Your task to perform on an android device: change timer sound Image 0: 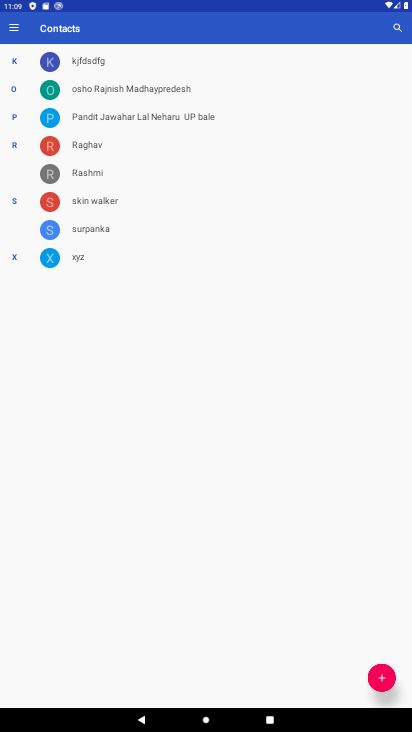
Step 0: press home button
Your task to perform on an android device: change timer sound Image 1: 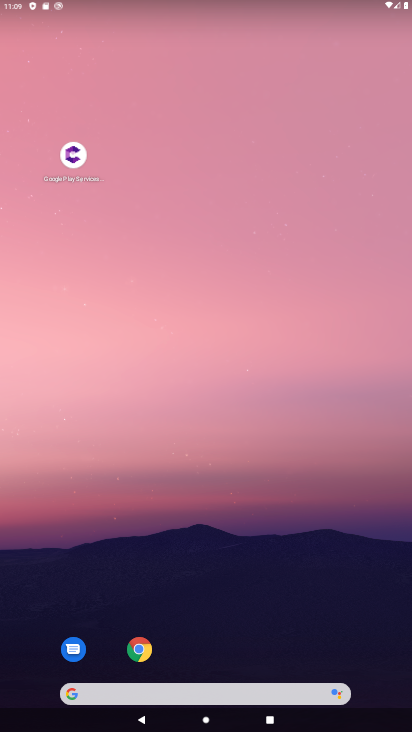
Step 1: drag from (254, 669) to (233, 83)
Your task to perform on an android device: change timer sound Image 2: 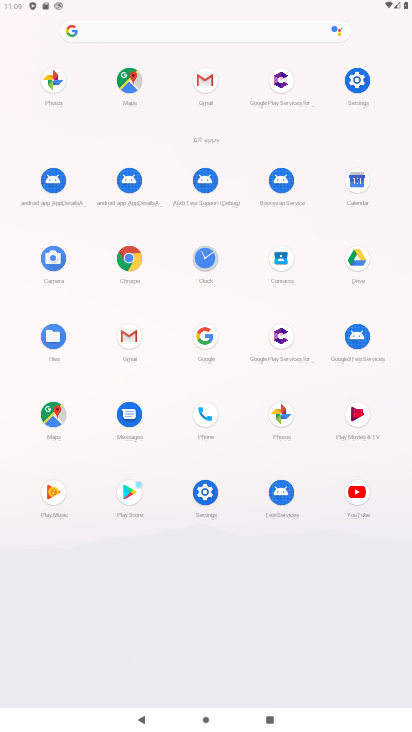
Step 2: click (207, 504)
Your task to perform on an android device: change timer sound Image 3: 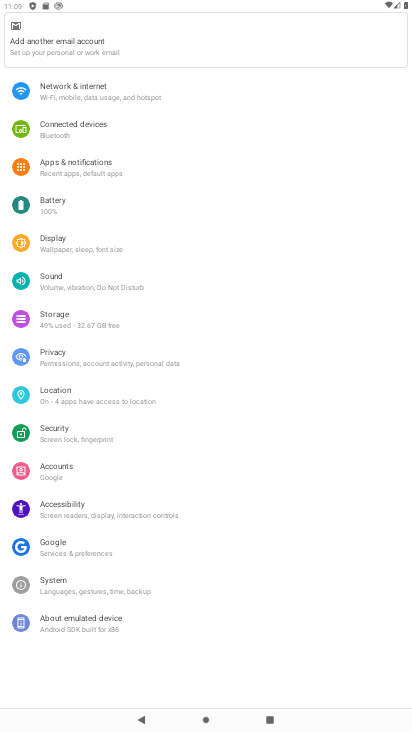
Step 3: press home button
Your task to perform on an android device: change timer sound Image 4: 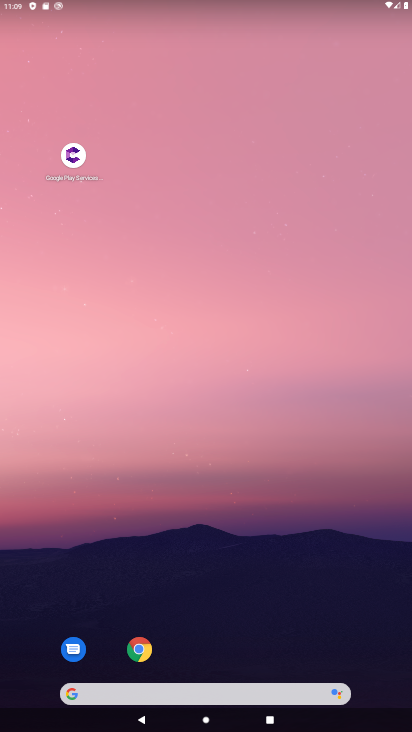
Step 4: drag from (250, 611) to (273, 50)
Your task to perform on an android device: change timer sound Image 5: 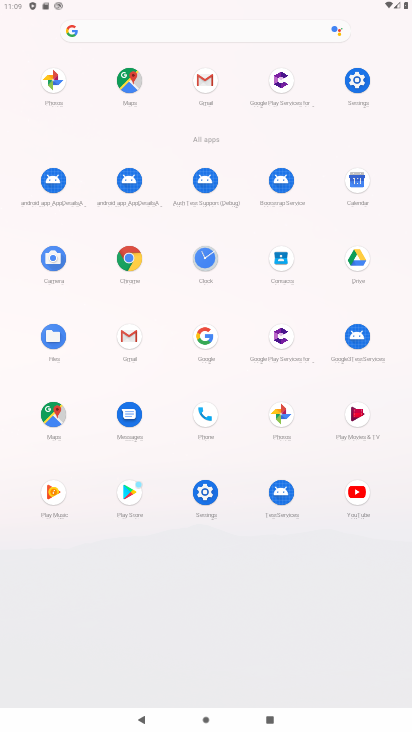
Step 5: click (210, 263)
Your task to perform on an android device: change timer sound Image 6: 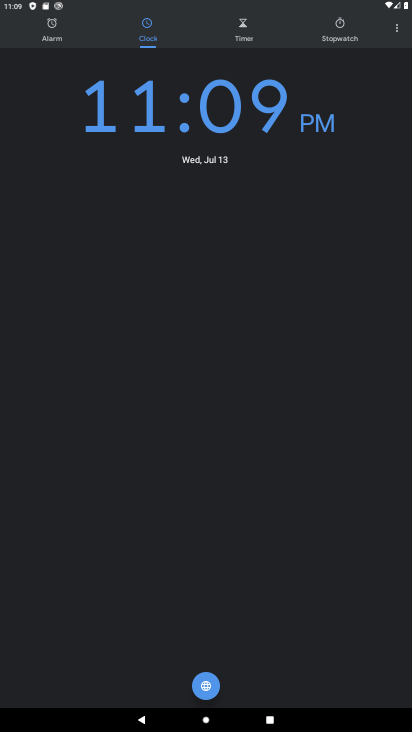
Step 6: click (393, 33)
Your task to perform on an android device: change timer sound Image 7: 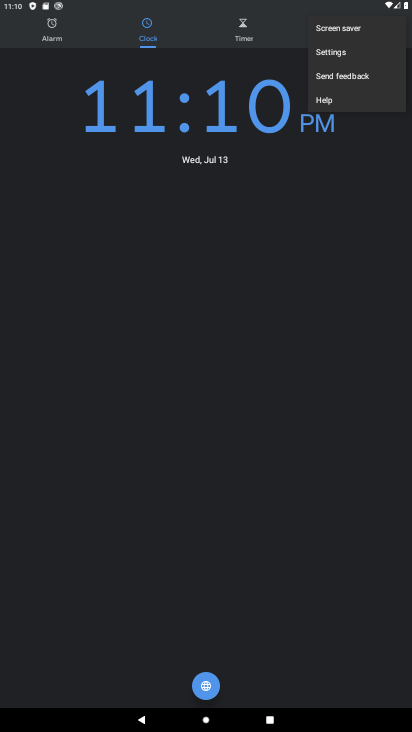
Step 7: click (324, 55)
Your task to perform on an android device: change timer sound Image 8: 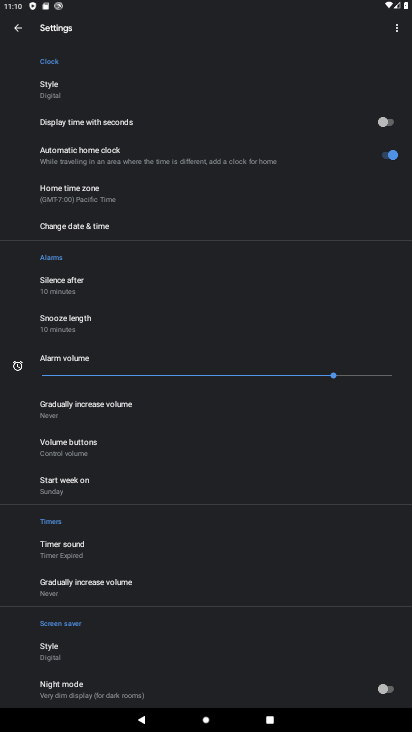
Step 8: click (93, 549)
Your task to perform on an android device: change timer sound Image 9: 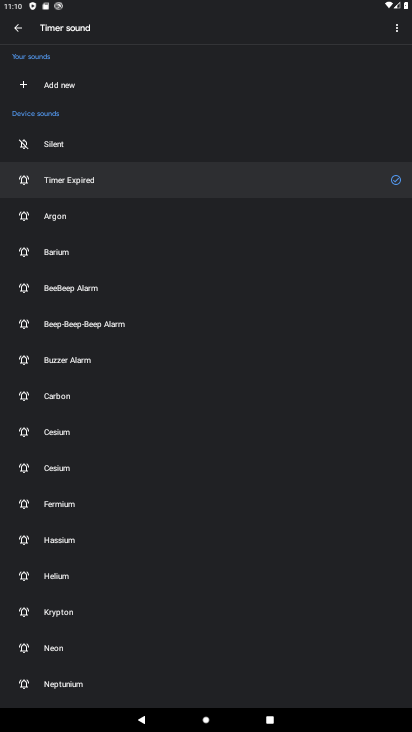
Step 9: click (75, 362)
Your task to perform on an android device: change timer sound Image 10: 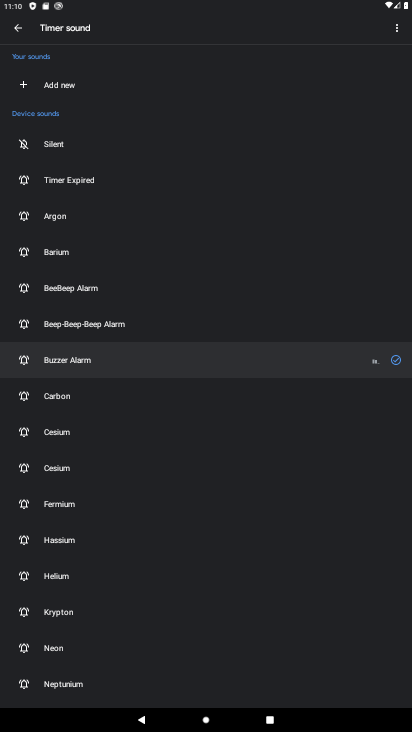
Step 10: task complete